Your task to perform on an android device: Go to network settings Image 0: 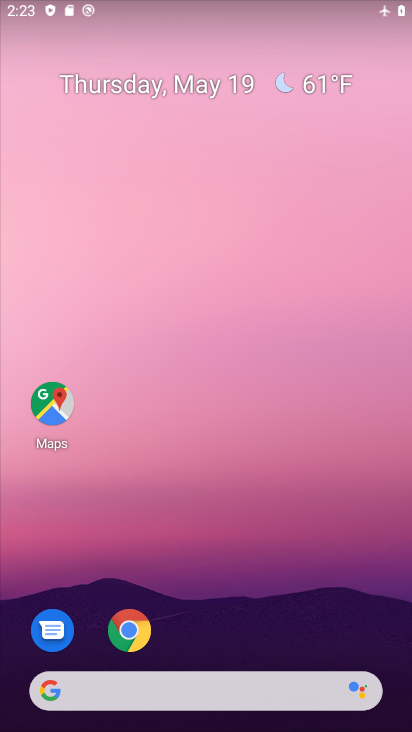
Step 0: drag from (272, 391) to (237, 61)
Your task to perform on an android device: Go to network settings Image 1: 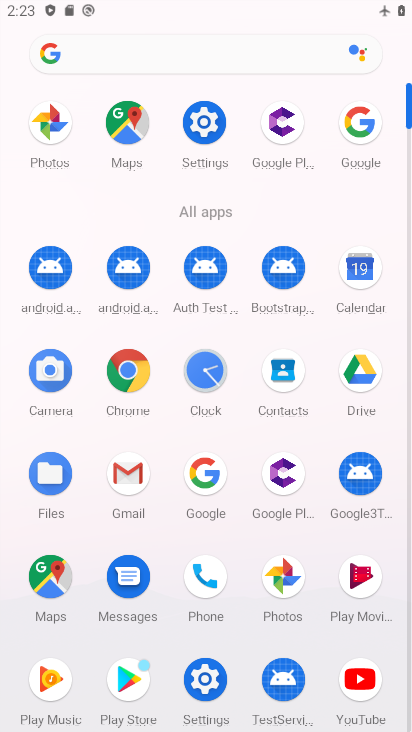
Step 1: click (204, 131)
Your task to perform on an android device: Go to network settings Image 2: 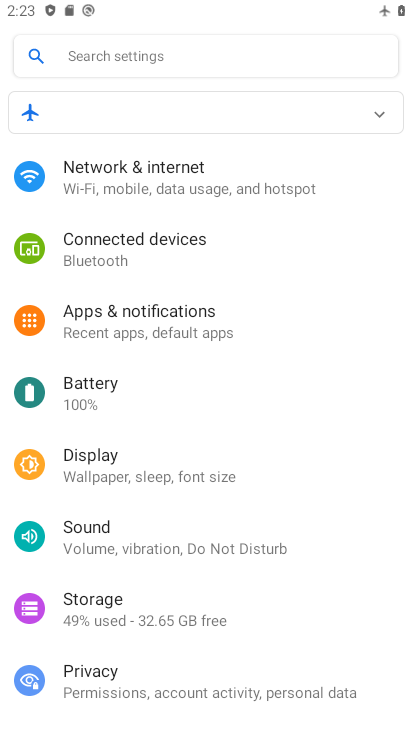
Step 2: click (156, 197)
Your task to perform on an android device: Go to network settings Image 3: 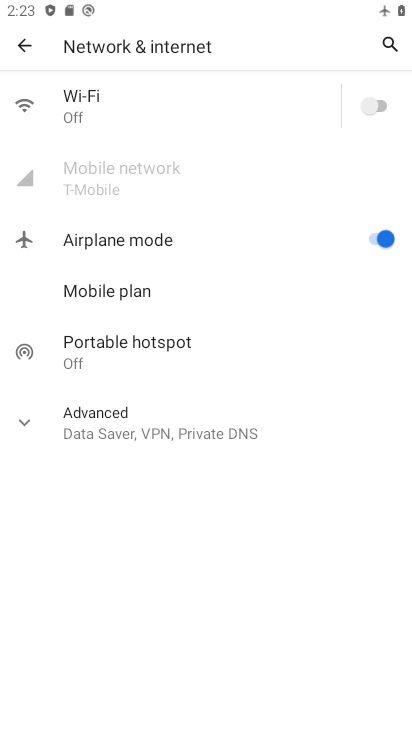
Step 3: task complete